Your task to perform on an android device: Go to settings Image 0: 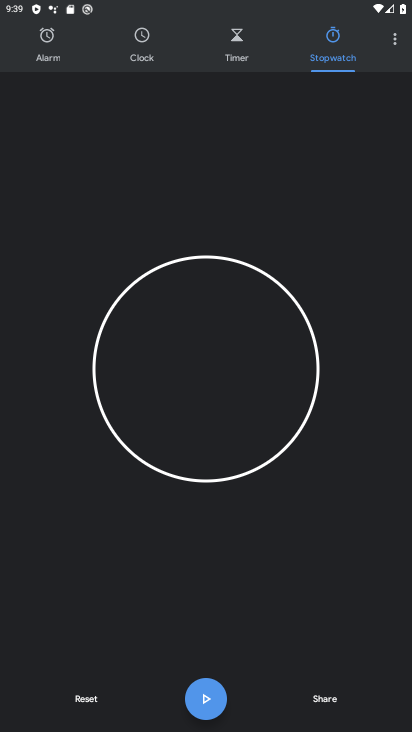
Step 0: press back button
Your task to perform on an android device: Go to settings Image 1: 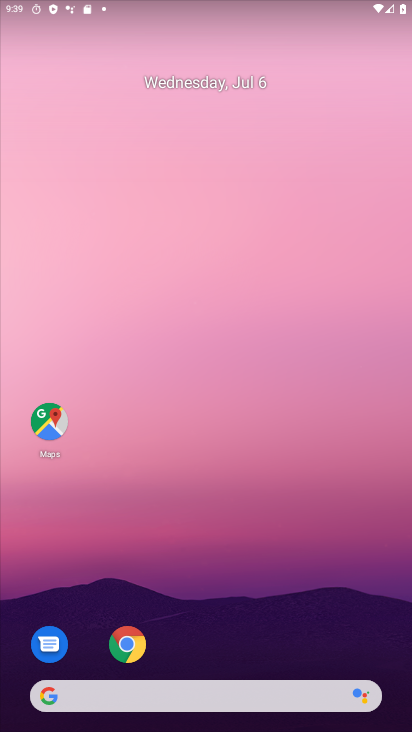
Step 1: drag from (265, 710) to (168, 150)
Your task to perform on an android device: Go to settings Image 2: 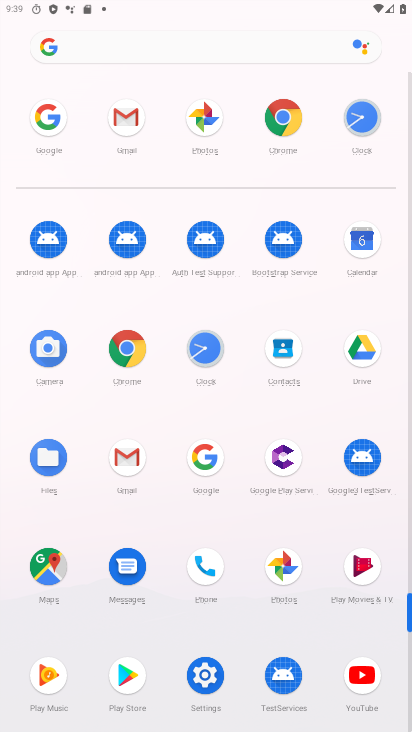
Step 2: drag from (210, 654) to (144, 214)
Your task to perform on an android device: Go to settings Image 3: 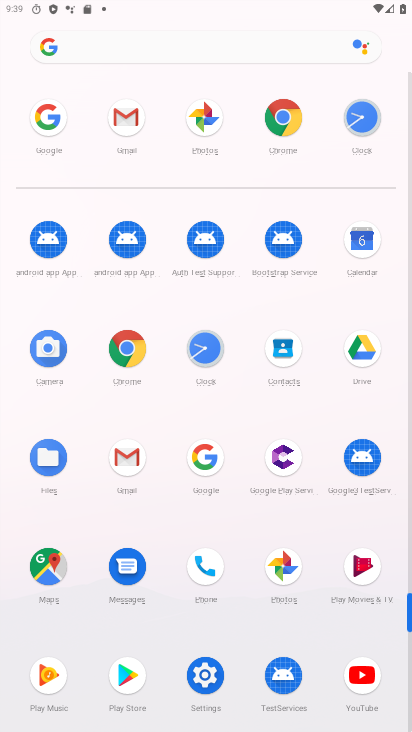
Step 3: drag from (260, 589) to (107, 135)
Your task to perform on an android device: Go to settings Image 4: 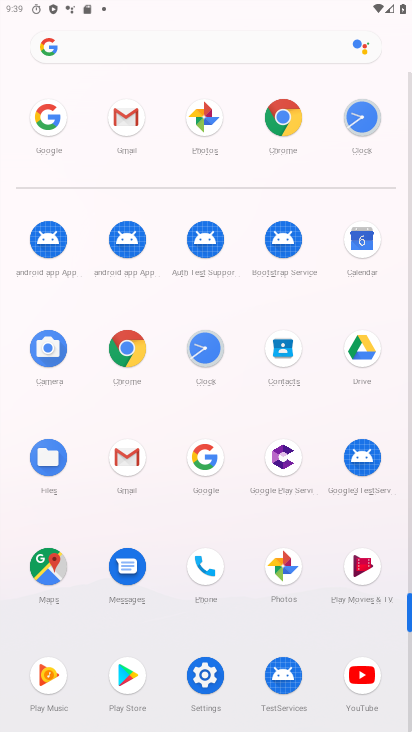
Step 4: drag from (202, 420) to (157, 87)
Your task to perform on an android device: Go to settings Image 5: 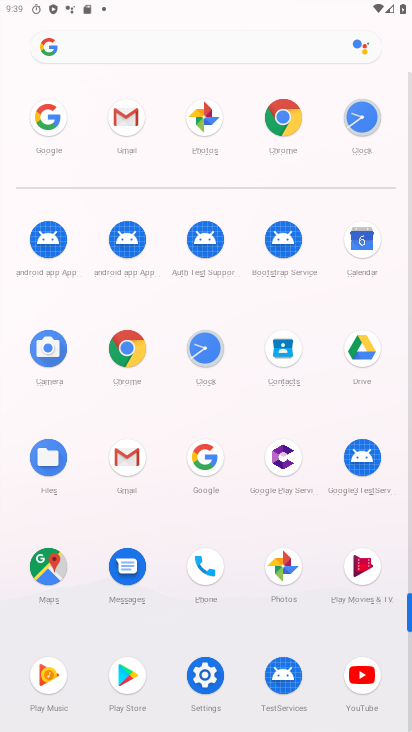
Step 5: click (220, 661)
Your task to perform on an android device: Go to settings Image 6: 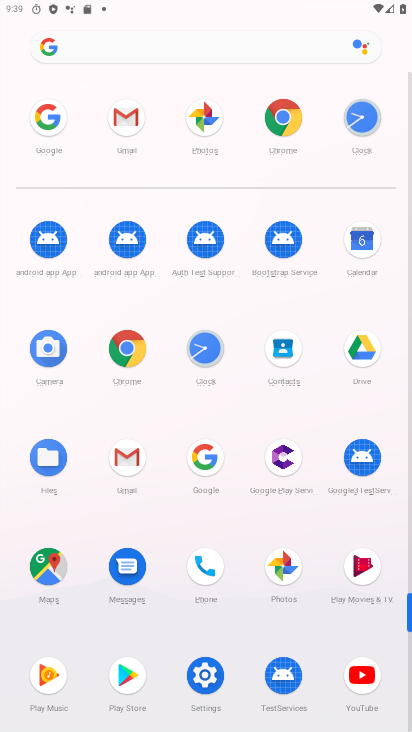
Step 6: click (213, 671)
Your task to perform on an android device: Go to settings Image 7: 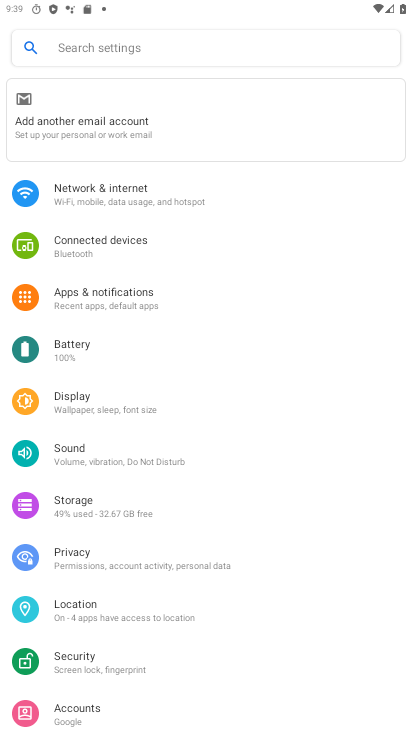
Step 7: click (211, 674)
Your task to perform on an android device: Go to settings Image 8: 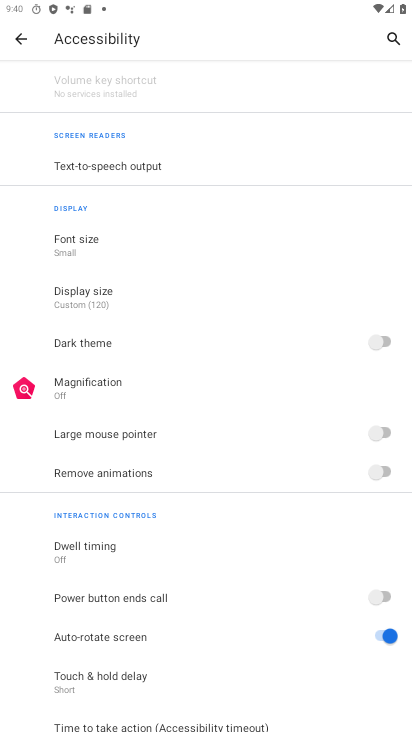
Step 8: click (16, 41)
Your task to perform on an android device: Go to settings Image 9: 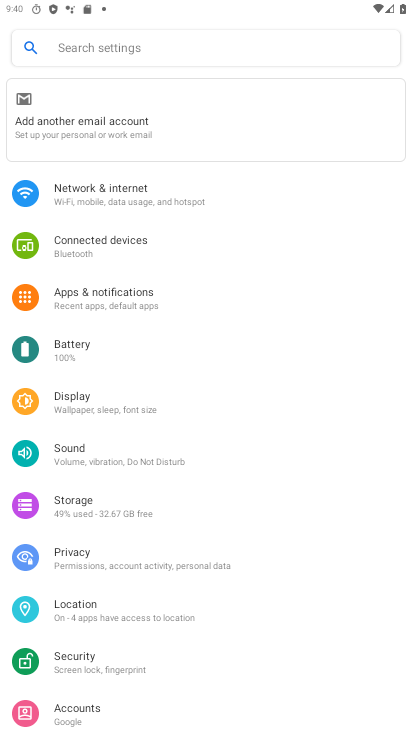
Step 9: task complete